Your task to perform on an android device: toggle notifications settings in the gmail app Image 0: 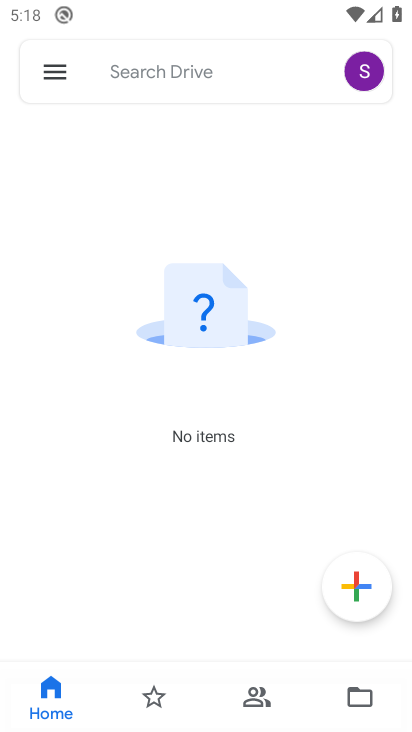
Step 0: press back button
Your task to perform on an android device: toggle notifications settings in the gmail app Image 1: 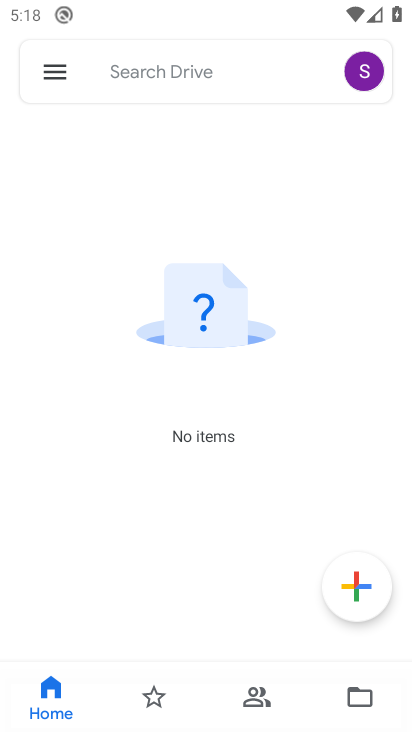
Step 1: press back button
Your task to perform on an android device: toggle notifications settings in the gmail app Image 2: 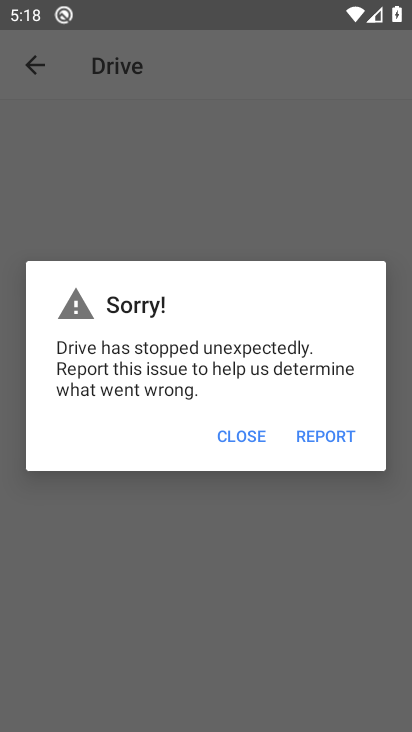
Step 2: press back button
Your task to perform on an android device: toggle notifications settings in the gmail app Image 3: 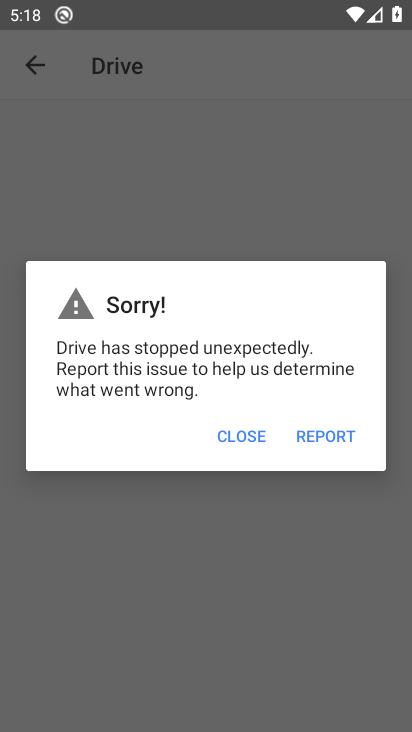
Step 3: press home button
Your task to perform on an android device: toggle notifications settings in the gmail app Image 4: 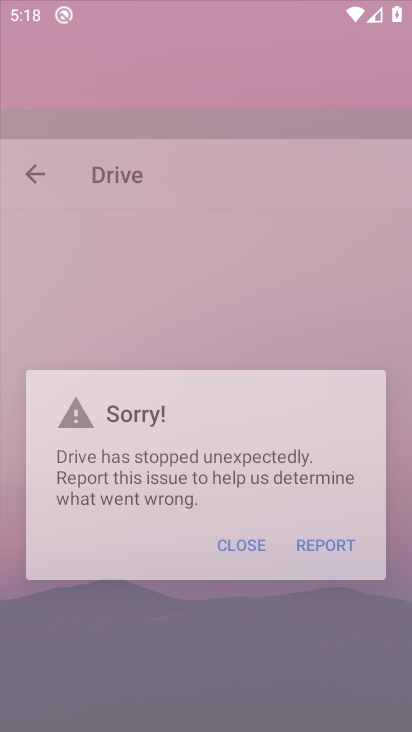
Step 4: press back button
Your task to perform on an android device: toggle notifications settings in the gmail app Image 5: 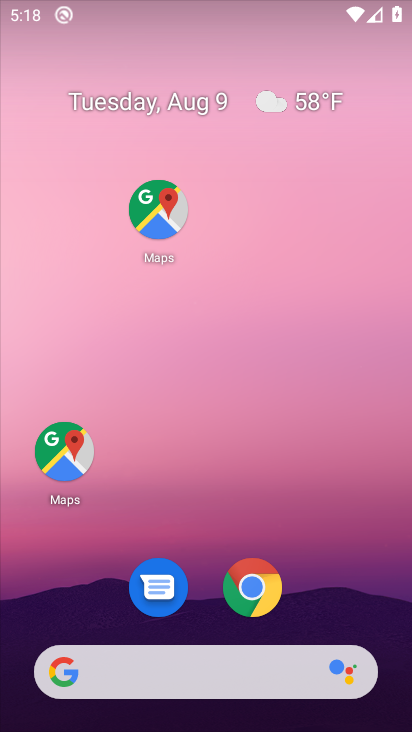
Step 5: drag from (270, 688) to (191, 24)
Your task to perform on an android device: toggle notifications settings in the gmail app Image 6: 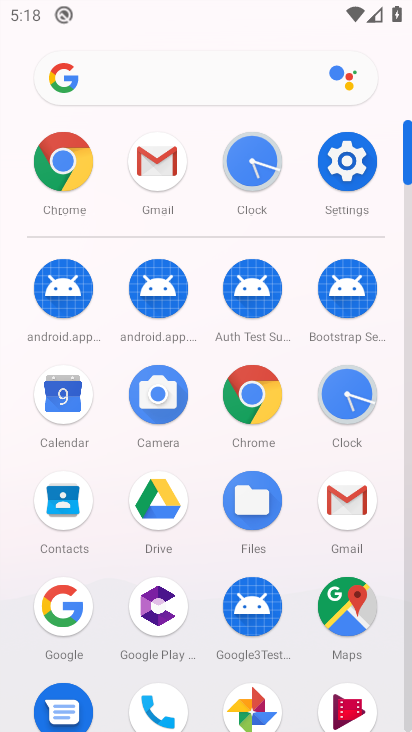
Step 6: drag from (332, 479) to (354, 513)
Your task to perform on an android device: toggle notifications settings in the gmail app Image 7: 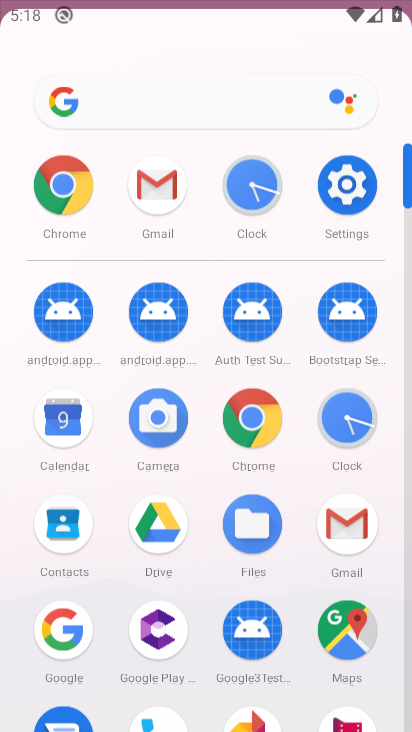
Step 7: click (356, 515)
Your task to perform on an android device: toggle notifications settings in the gmail app Image 8: 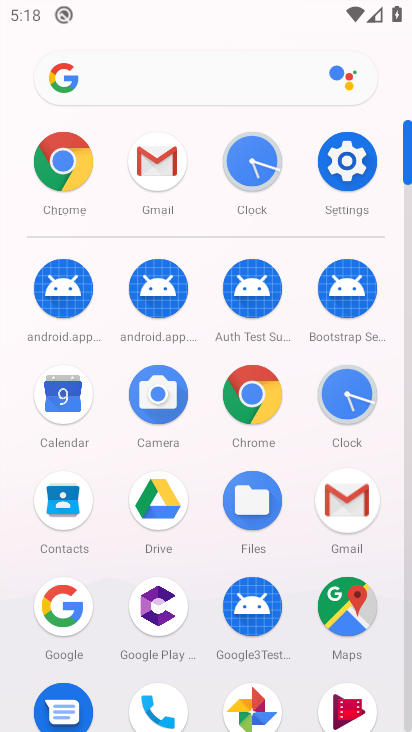
Step 8: click (357, 527)
Your task to perform on an android device: toggle notifications settings in the gmail app Image 9: 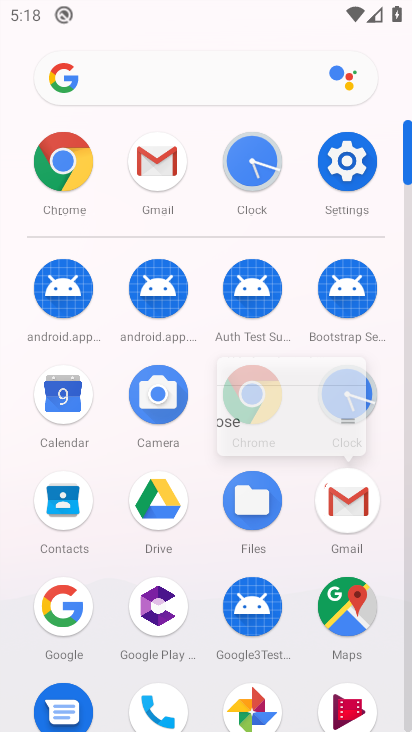
Step 9: click (357, 527)
Your task to perform on an android device: toggle notifications settings in the gmail app Image 10: 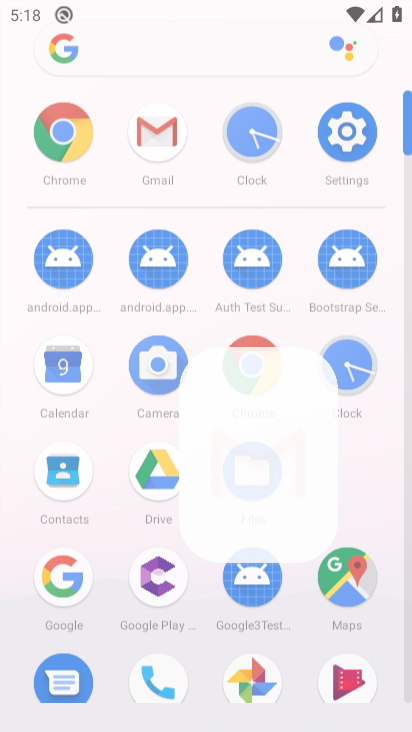
Step 10: click (340, 463)
Your task to perform on an android device: toggle notifications settings in the gmail app Image 11: 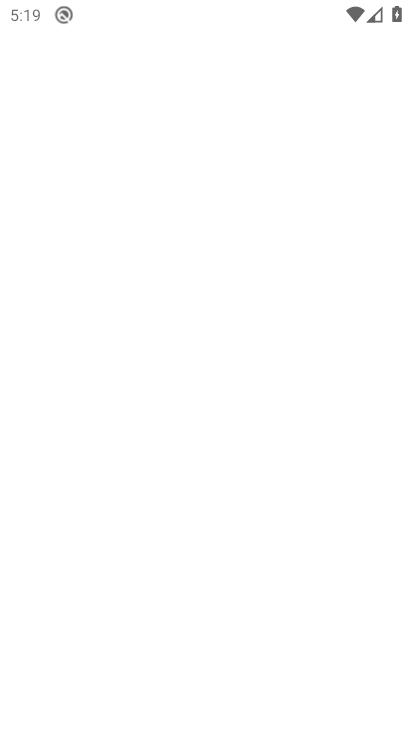
Step 11: click (341, 493)
Your task to perform on an android device: toggle notifications settings in the gmail app Image 12: 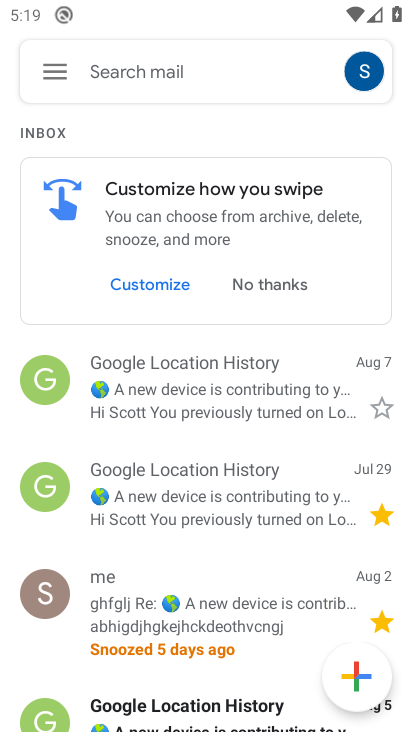
Step 12: drag from (54, 68) to (120, 616)
Your task to perform on an android device: toggle notifications settings in the gmail app Image 13: 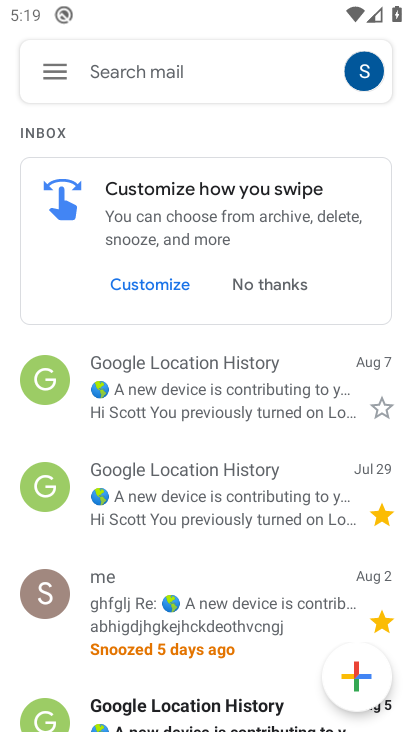
Step 13: click (60, 59)
Your task to perform on an android device: toggle notifications settings in the gmail app Image 14: 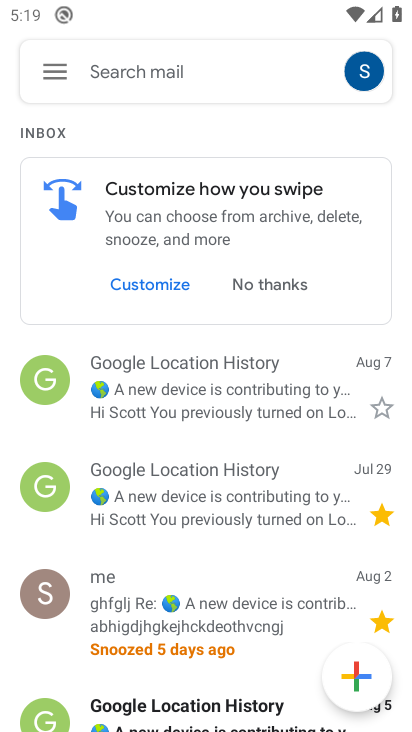
Step 14: click (60, 62)
Your task to perform on an android device: toggle notifications settings in the gmail app Image 15: 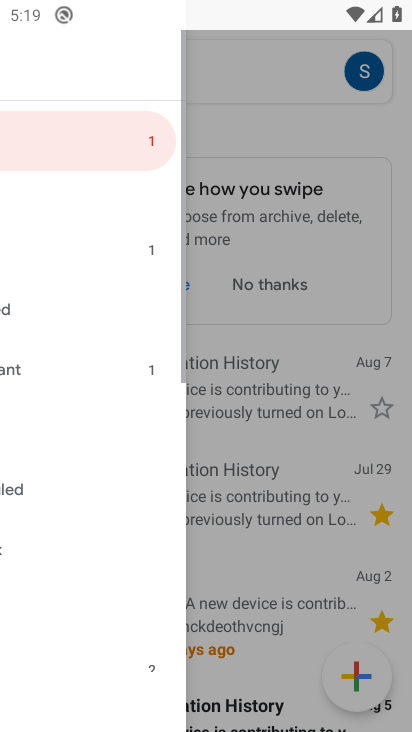
Step 15: click (60, 62)
Your task to perform on an android device: toggle notifications settings in the gmail app Image 16: 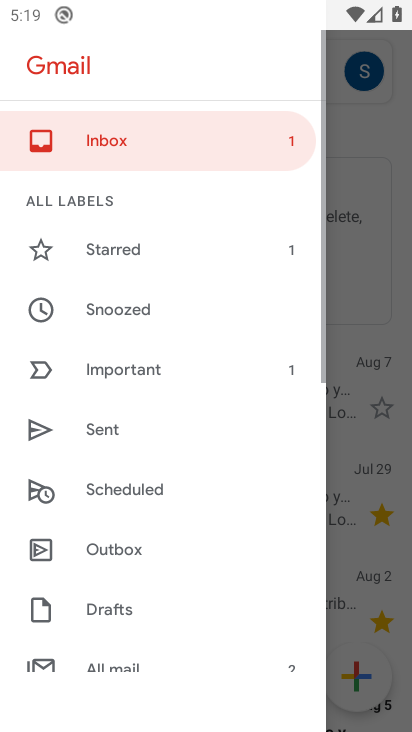
Step 16: click (60, 62)
Your task to perform on an android device: toggle notifications settings in the gmail app Image 17: 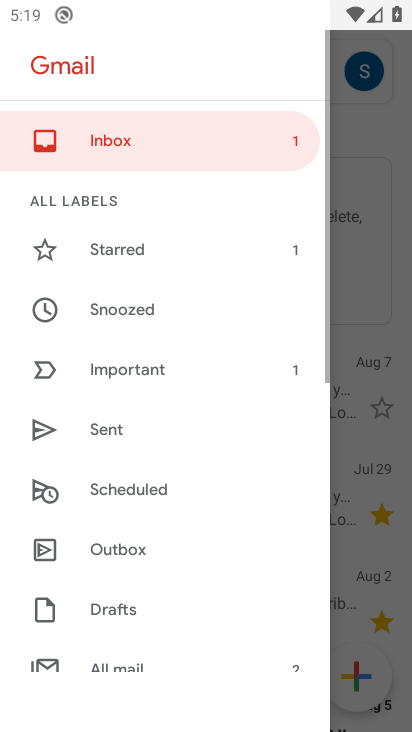
Step 17: drag from (117, 599) to (122, 155)
Your task to perform on an android device: toggle notifications settings in the gmail app Image 18: 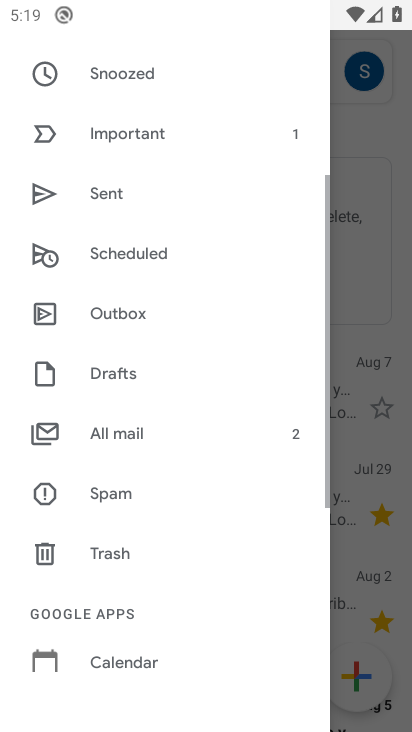
Step 18: drag from (142, 577) to (196, 210)
Your task to perform on an android device: toggle notifications settings in the gmail app Image 19: 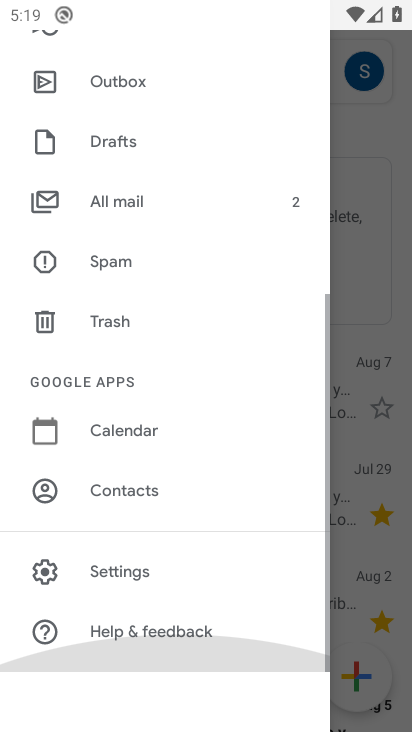
Step 19: drag from (197, 526) to (197, 176)
Your task to perform on an android device: toggle notifications settings in the gmail app Image 20: 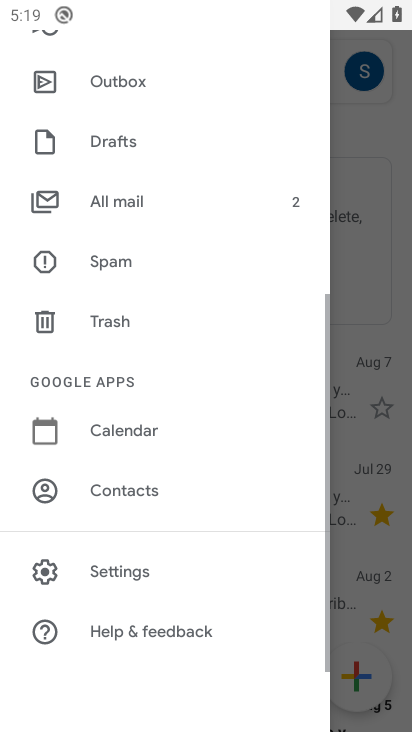
Step 20: click (123, 565)
Your task to perform on an android device: toggle notifications settings in the gmail app Image 21: 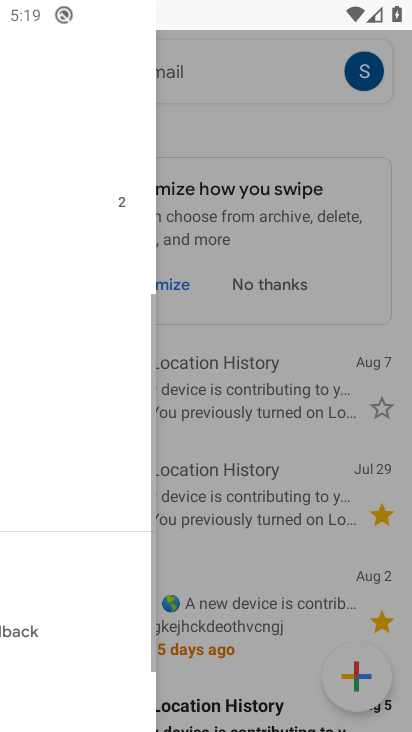
Step 21: click (123, 565)
Your task to perform on an android device: toggle notifications settings in the gmail app Image 22: 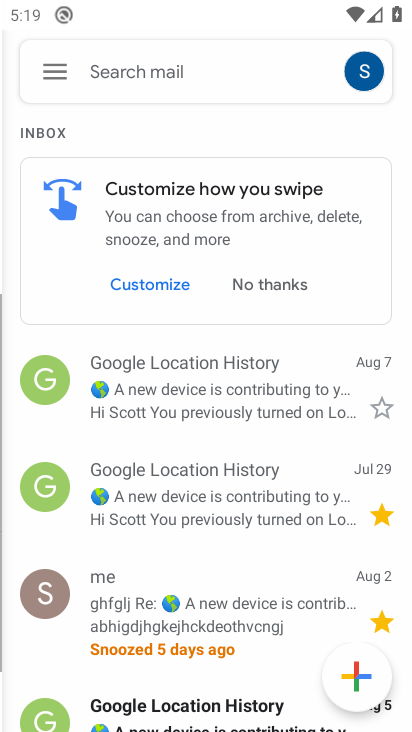
Step 22: click (122, 567)
Your task to perform on an android device: toggle notifications settings in the gmail app Image 23: 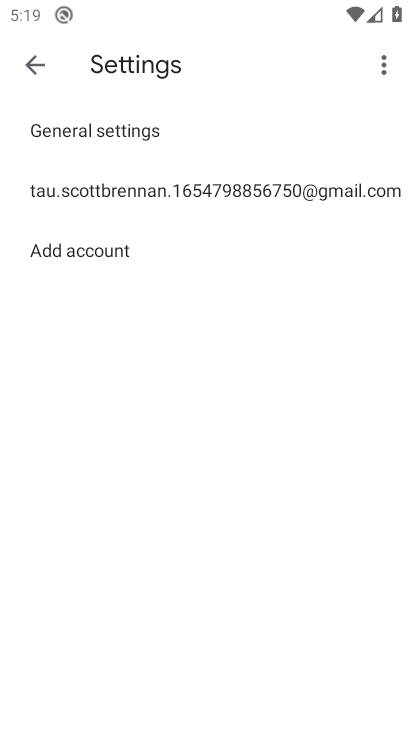
Step 23: click (92, 197)
Your task to perform on an android device: toggle notifications settings in the gmail app Image 24: 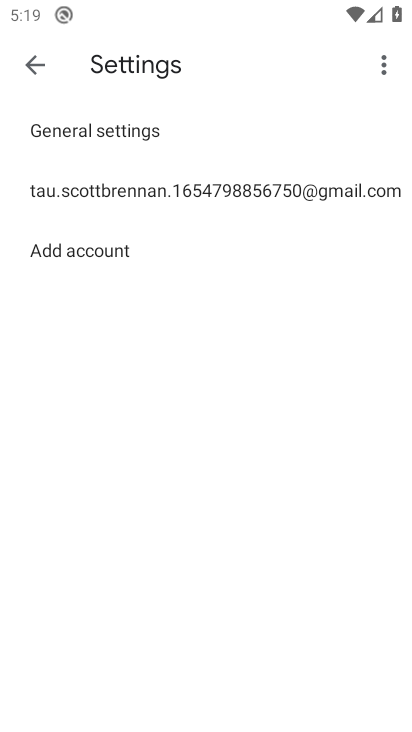
Step 24: click (90, 192)
Your task to perform on an android device: toggle notifications settings in the gmail app Image 25: 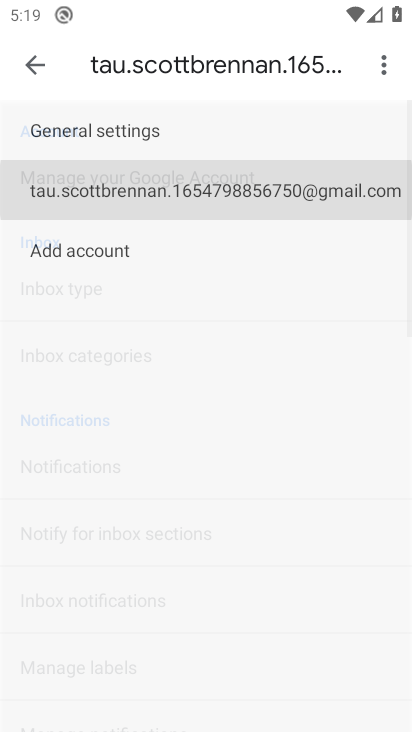
Step 25: click (90, 191)
Your task to perform on an android device: toggle notifications settings in the gmail app Image 26: 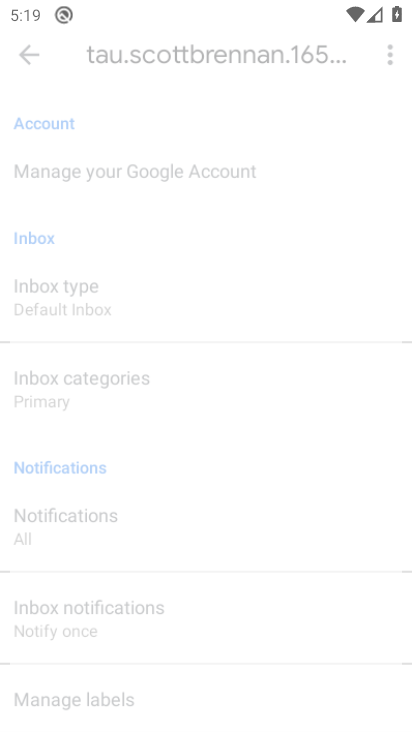
Step 26: click (78, 509)
Your task to perform on an android device: toggle notifications settings in the gmail app Image 27: 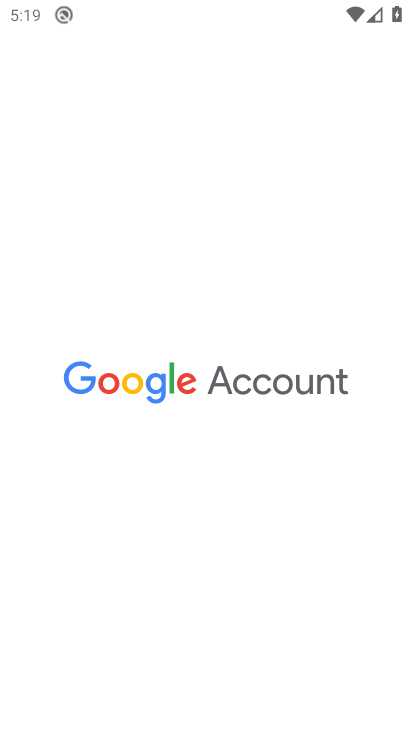
Step 27: click (77, 508)
Your task to perform on an android device: toggle notifications settings in the gmail app Image 28: 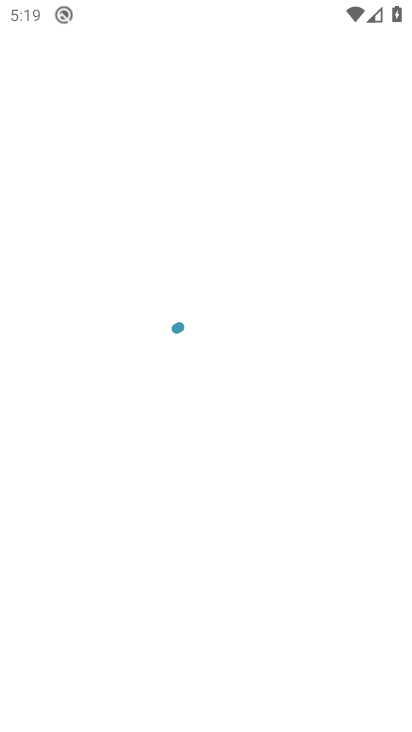
Step 28: press back button
Your task to perform on an android device: toggle notifications settings in the gmail app Image 29: 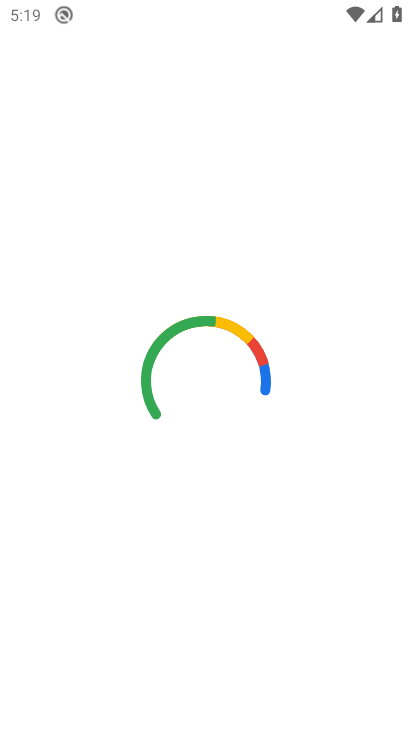
Step 29: press back button
Your task to perform on an android device: toggle notifications settings in the gmail app Image 30: 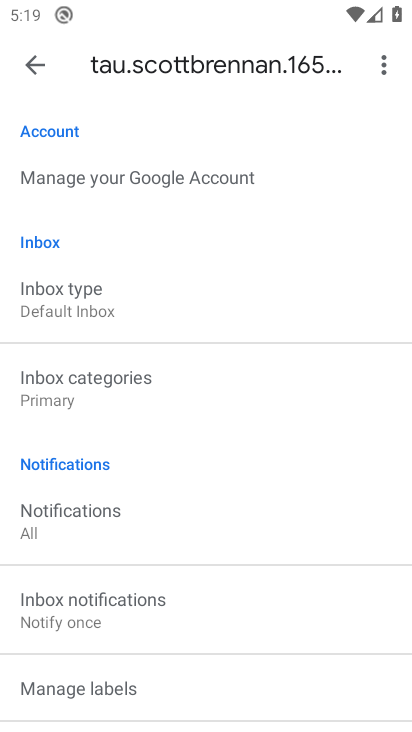
Step 30: click (75, 524)
Your task to perform on an android device: toggle notifications settings in the gmail app Image 31: 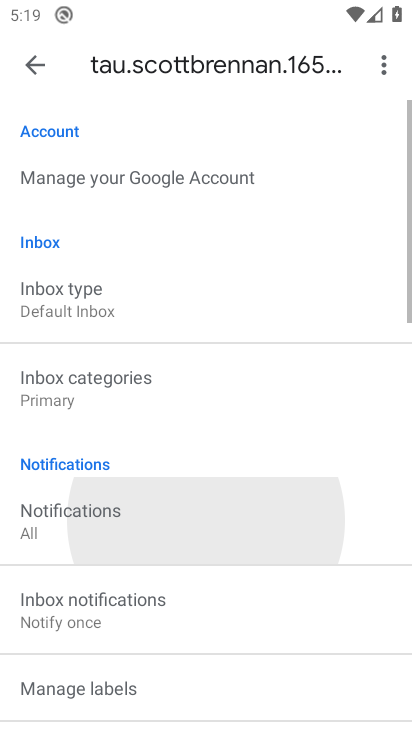
Step 31: click (75, 524)
Your task to perform on an android device: toggle notifications settings in the gmail app Image 32: 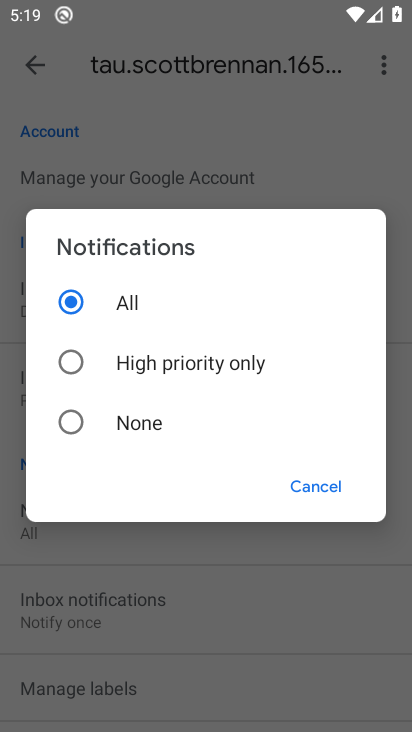
Step 32: click (72, 367)
Your task to perform on an android device: toggle notifications settings in the gmail app Image 33: 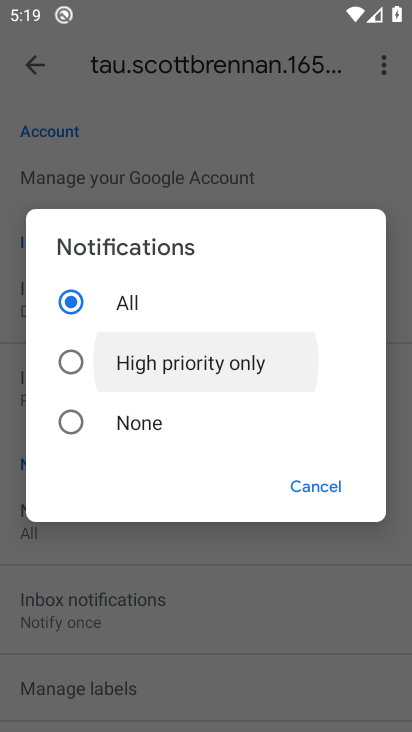
Step 33: click (73, 361)
Your task to perform on an android device: toggle notifications settings in the gmail app Image 34: 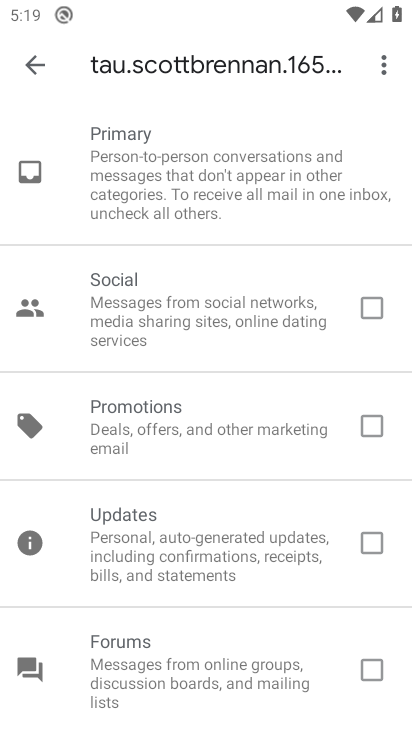
Step 34: task complete